Your task to perform on an android device: Check the weather Image 0: 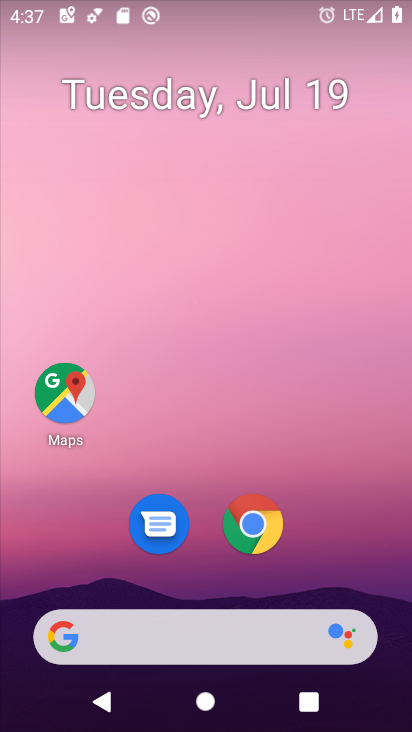
Step 0: drag from (311, 519) to (338, 101)
Your task to perform on an android device: Check the weather Image 1: 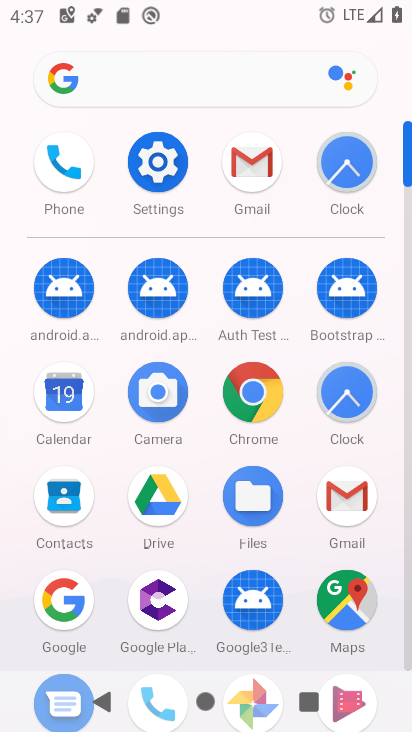
Step 1: press back button
Your task to perform on an android device: Check the weather Image 2: 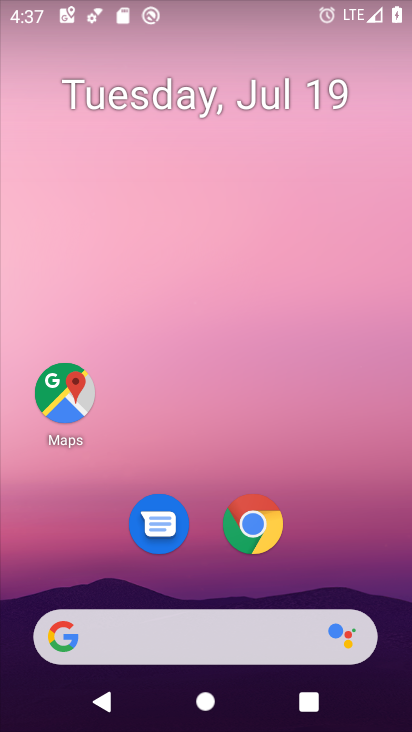
Step 2: click (210, 649)
Your task to perform on an android device: Check the weather Image 3: 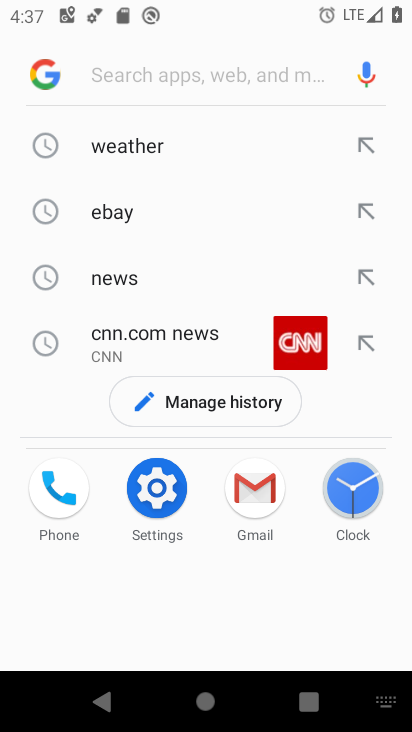
Step 3: click (147, 135)
Your task to perform on an android device: Check the weather Image 4: 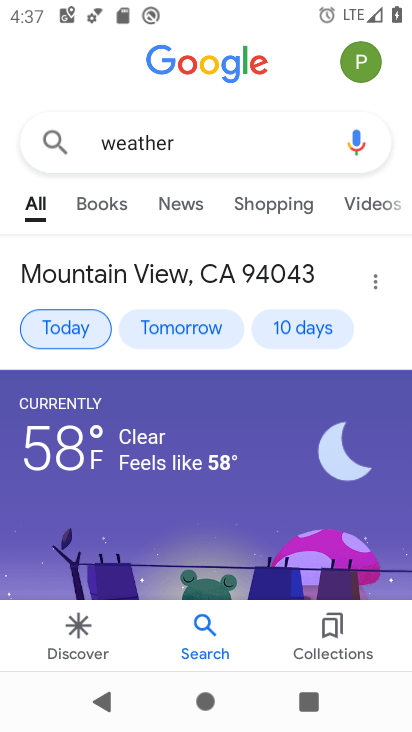
Step 4: click (91, 316)
Your task to perform on an android device: Check the weather Image 5: 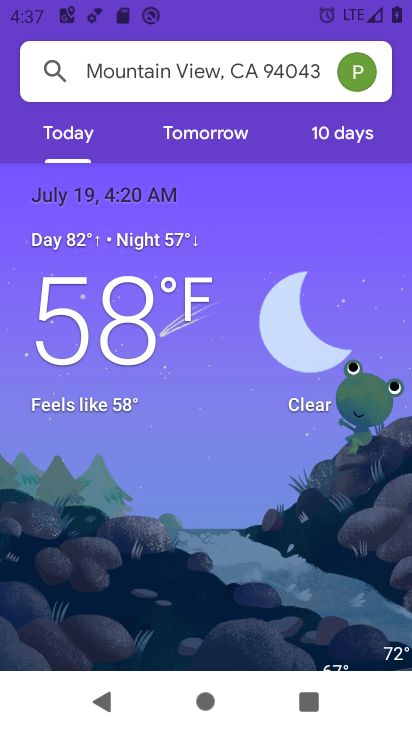
Step 5: task complete